Your task to perform on an android device: Open Yahoo.com Image 0: 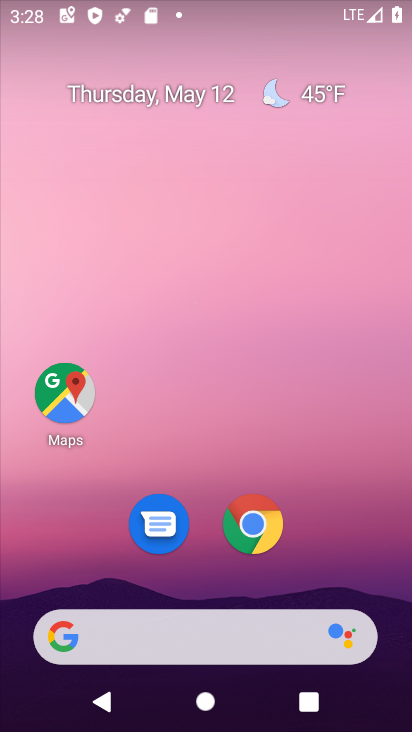
Step 0: click (267, 632)
Your task to perform on an android device: Open Yahoo.com Image 1: 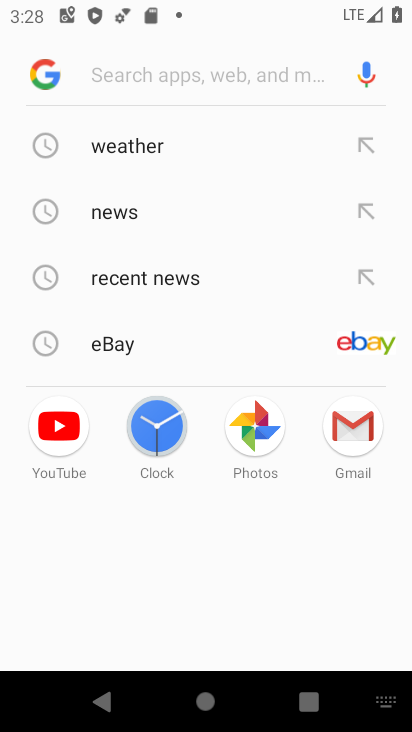
Step 1: type "yahoo.com"
Your task to perform on an android device: Open Yahoo.com Image 2: 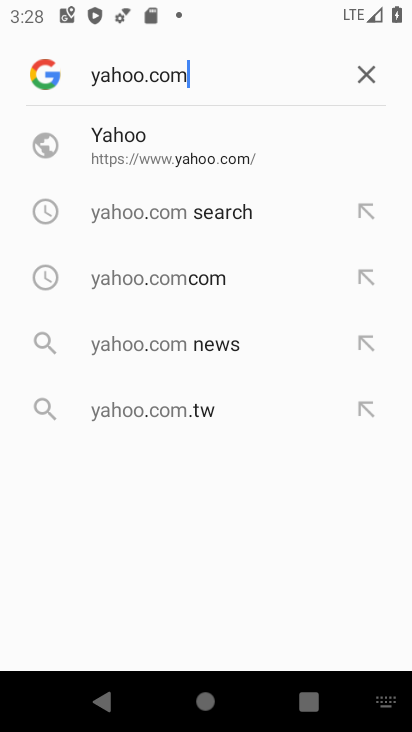
Step 2: click (94, 137)
Your task to perform on an android device: Open Yahoo.com Image 3: 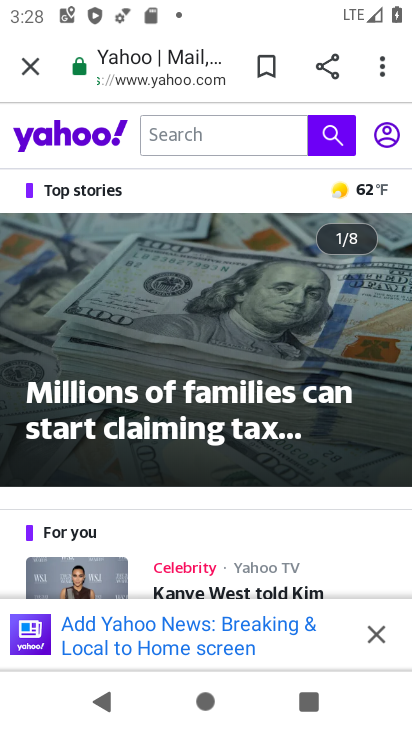
Step 3: task complete